Your task to perform on an android device: open a bookmark in the chrome app Image 0: 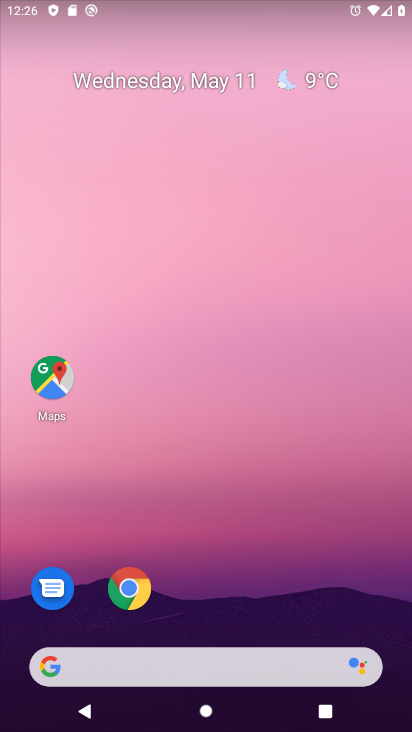
Step 0: click (133, 598)
Your task to perform on an android device: open a bookmark in the chrome app Image 1: 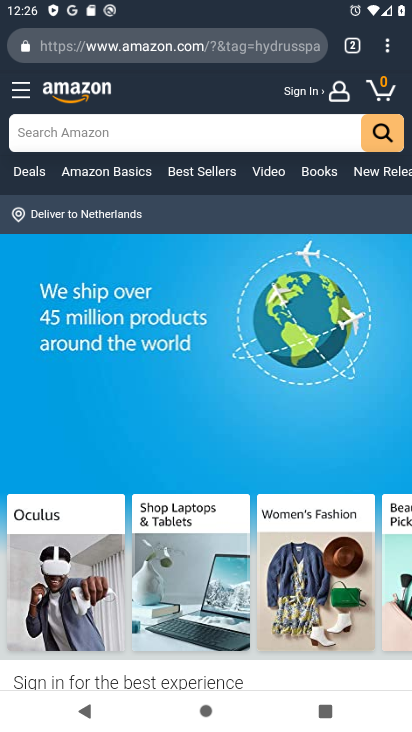
Step 1: drag from (388, 52) to (245, 167)
Your task to perform on an android device: open a bookmark in the chrome app Image 2: 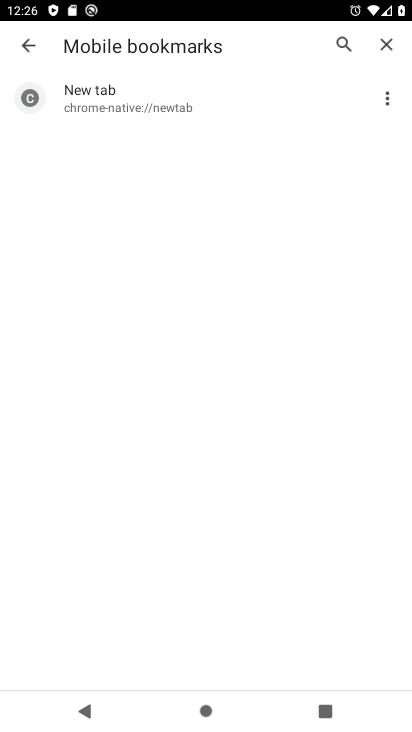
Step 2: click (109, 106)
Your task to perform on an android device: open a bookmark in the chrome app Image 3: 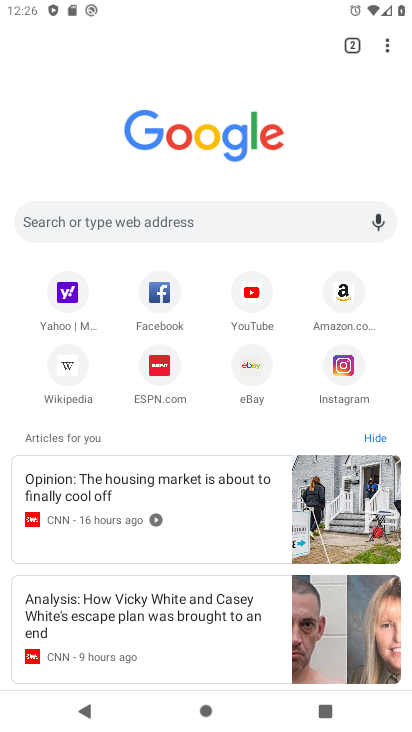
Step 3: task complete